Your task to perform on an android device: Search for pizza restaurants on Maps Image 0: 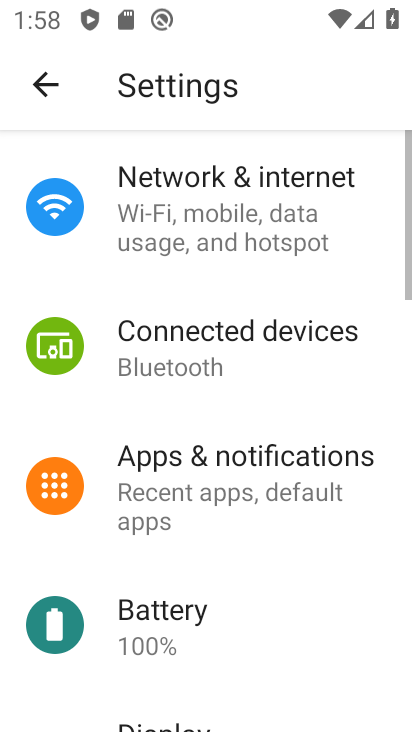
Step 0: press home button
Your task to perform on an android device: Search for pizza restaurants on Maps Image 1: 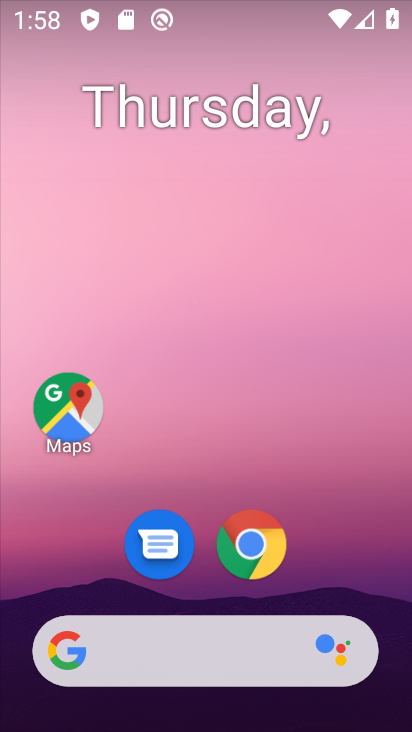
Step 1: click (64, 423)
Your task to perform on an android device: Search for pizza restaurants on Maps Image 2: 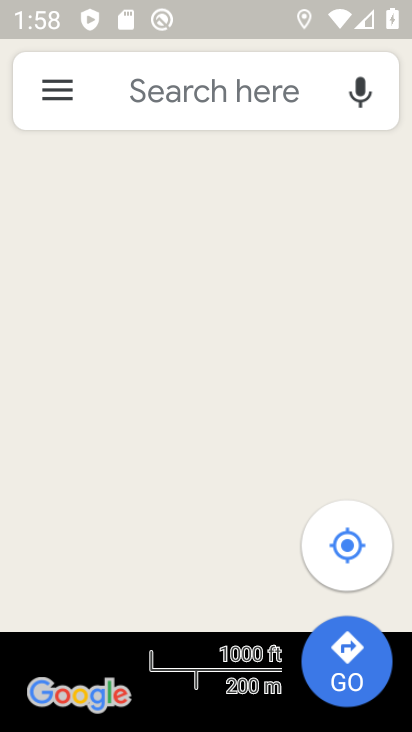
Step 2: click (178, 90)
Your task to perform on an android device: Search for pizza restaurants on Maps Image 3: 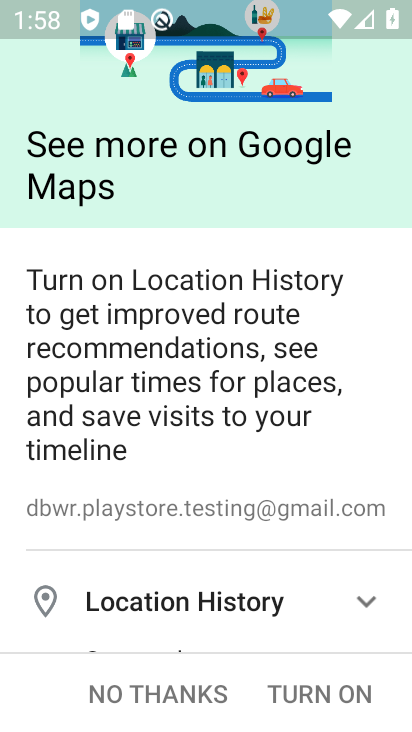
Step 3: press back button
Your task to perform on an android device: Search for pizza restaurants on Maps Image 4: 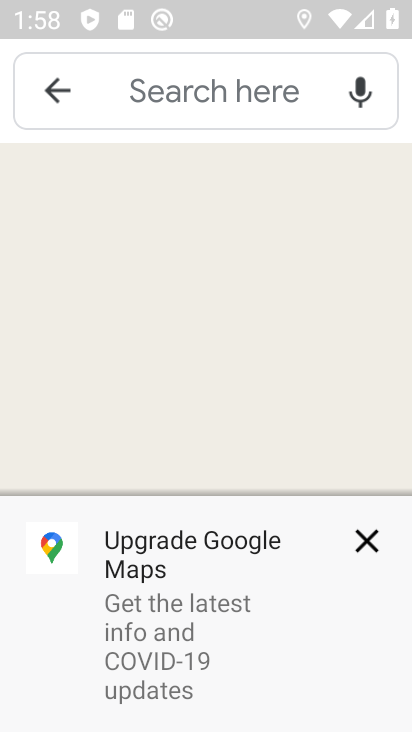
Step 4: click (124, 97)
Your task to perform on an android device: Search for pizza restaurants on Maps Image 5: 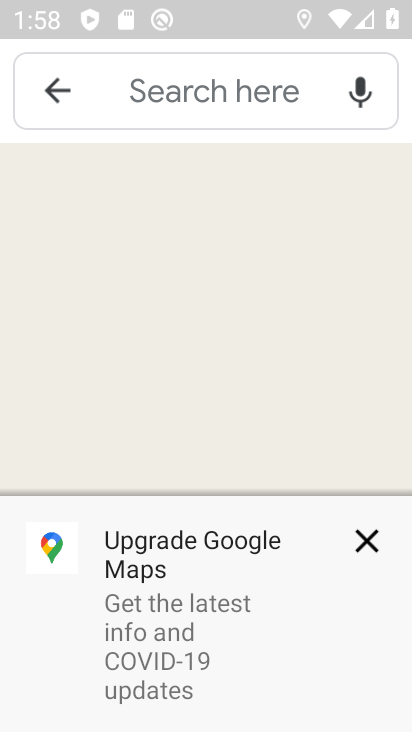
Step 5: click (214, 90)
Your task to perform on an android device: Search for pizza restaurants on Maps Image 6: 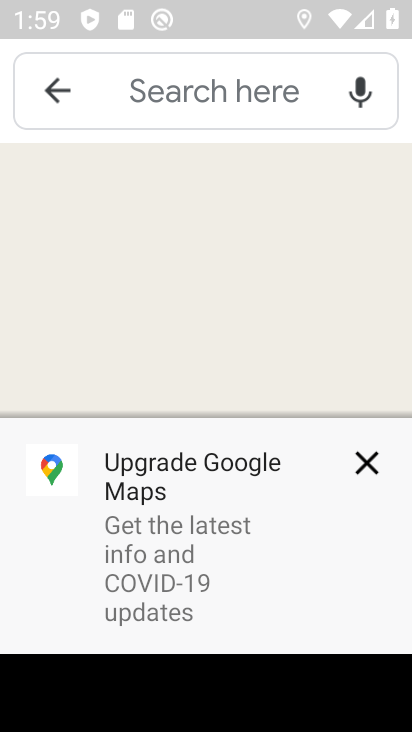
Step 6: type "pizza restaurants"
Your task to perform on an android device: Search for pizza restaurants on Maps Image 7: 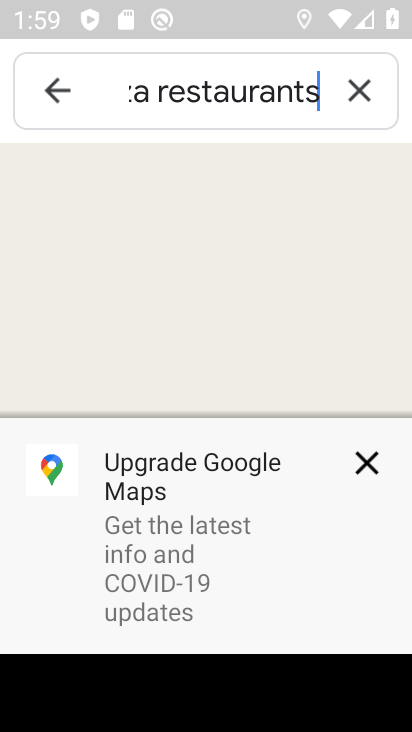
Step 7: click (268, 532)
Your task to perform on an android device: Search for pizza restaurants on Maps Image 8: 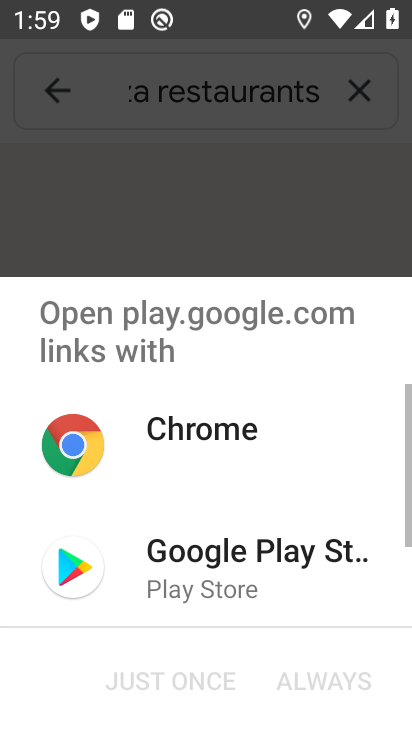
Step 8: click (140, 548)
Your task to perform on an android device: Search for pizza restaurants on Maps Image 9: 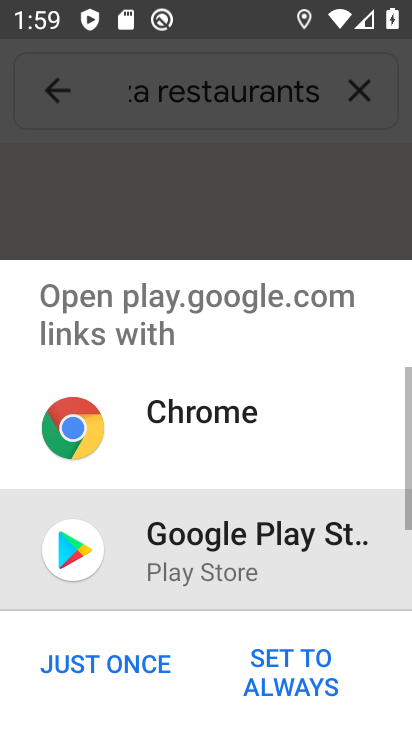
Step 9: click (138, 658)
Your task to perform on an android device: Search for pizza restaurants on Maps Image 10: 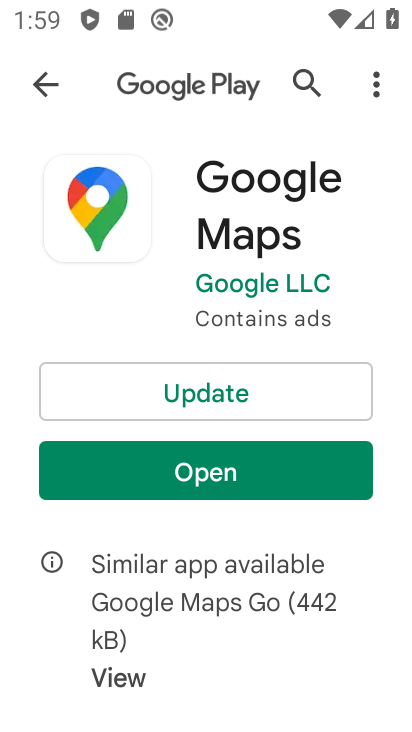
Step 10: click (316, 404)
Your task to perform on an android device: Search for pizza restaurants on Maps Image 11: 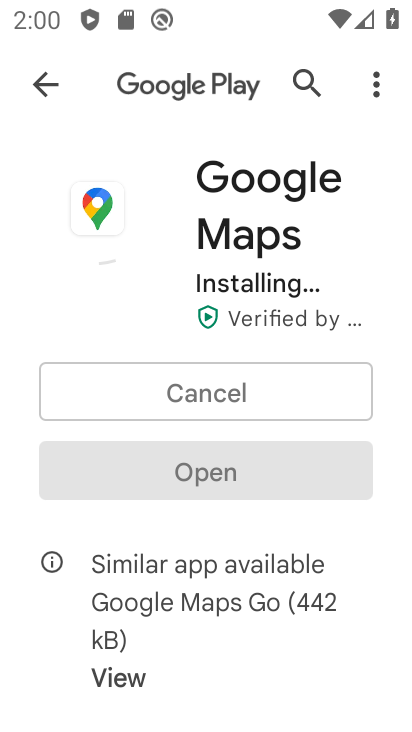
Step 11: click (215, 462)
Your task to perform on an android device: Search for pizza restaurants on Maps Image 12: 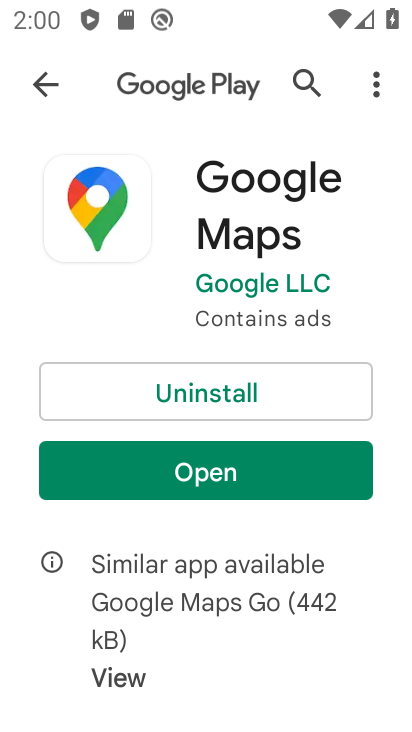
Step 12: click (223, 479)
Your task to perform on an android device: Search for pizza restaurants on Maps Image 13: 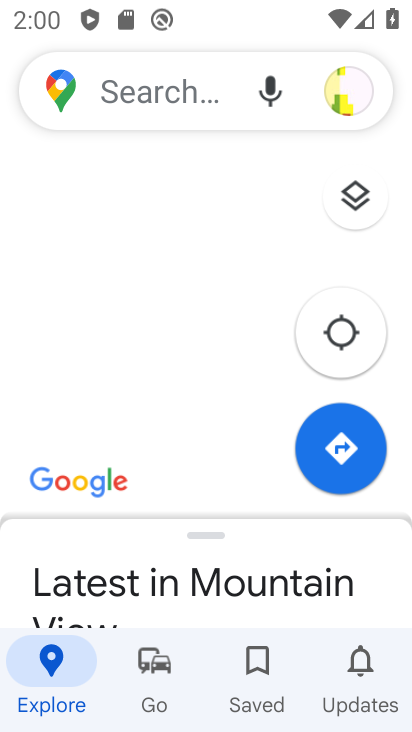
Step 13: click (232, 96)
Your task to perform on an android device: Search for pizza restaurants on Maps Image 14: 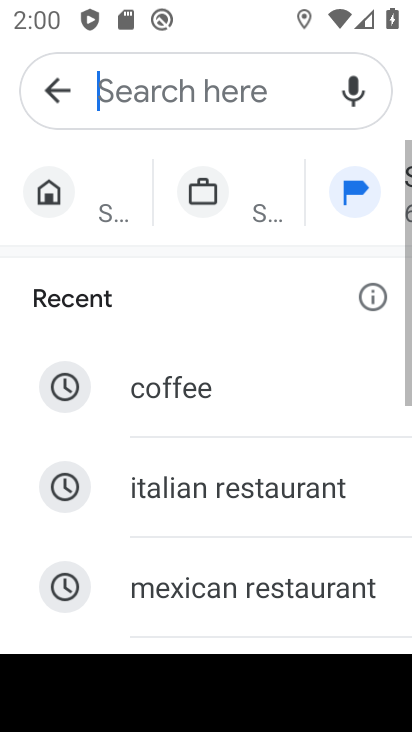
Step 14: drag from (199, 610) to (162, 216)
Your task to perform on an android device: Search for pizza restaurants on Maps Image 15: 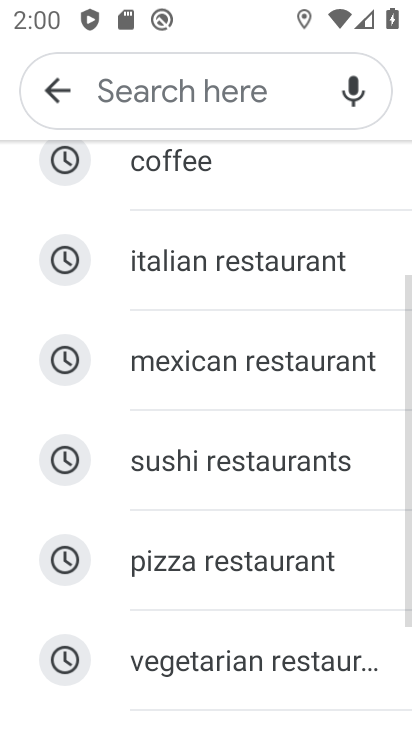
Step 15: click (188, 556)
Your task to perform on an android device: Search for pizza restaurants on Maps Image 16: 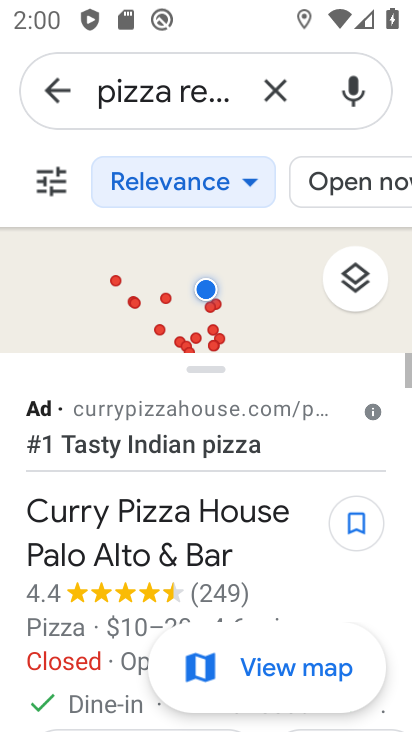
Step 16: task complete